Your task to perform on an android device: open the mobile data screen to see how much data has been used Image 0: 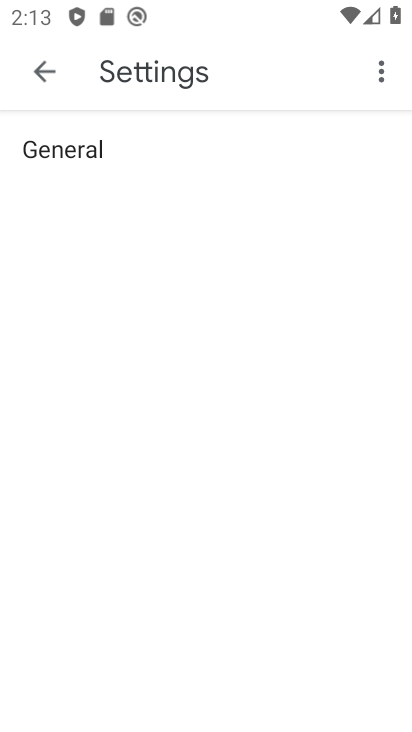
Step 0: press back button
Your task to perform on an android device: open the mobile data screen to see how much data has been used Image 1: 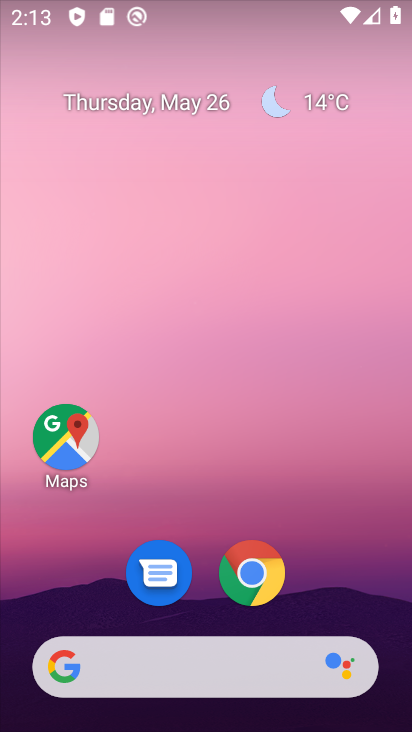
Step 1: drag from (309, 456) to (358, 2)
Your task to perform on an android device: open the mobile data screen to see how much data has been used Image 2: 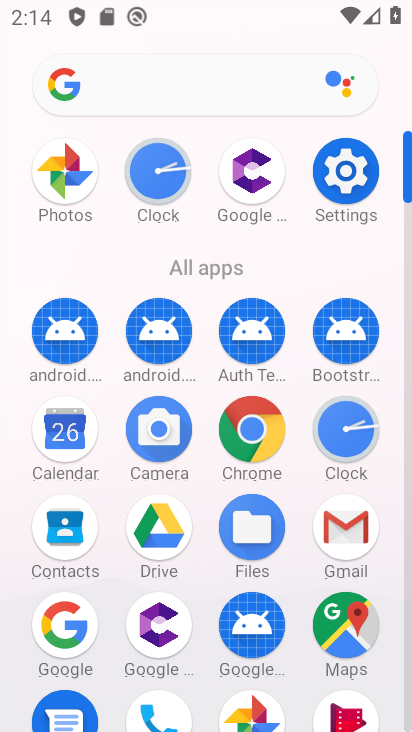
Step 2: drag from (13, 583) to (0, 293)
Your task to perform on an android device: open the mobile data screen to see how much data has been used Image 3: 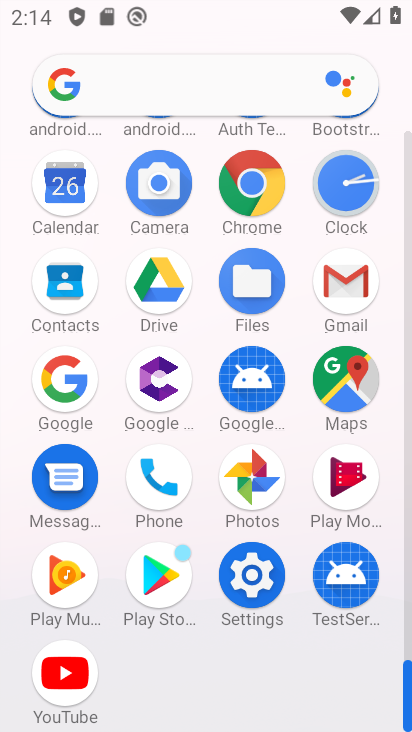
Step 3: click (249, 576)
Your task to perform on an android device: open the mobile data screen to see how much data has been used Image 4: 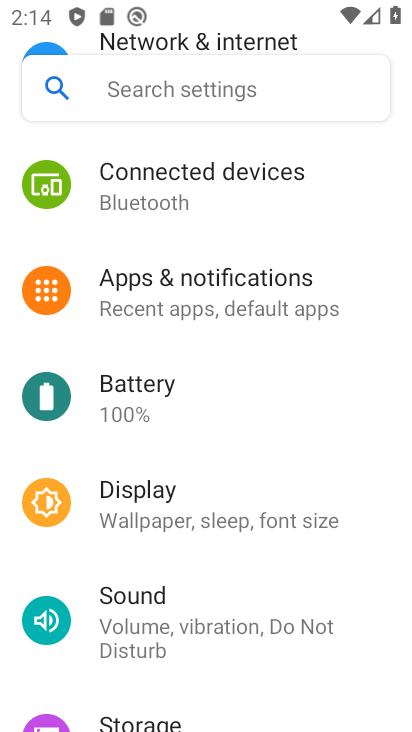
Step 4: drag from (280, 237) to (265, 586)
Your task to perform on an android device: open the mobile data screen to see how much data has been used Image 5: 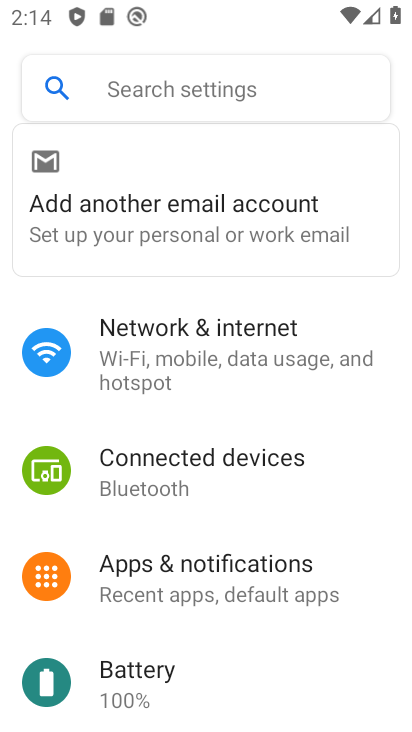
Step 5: click (214, 359)
Your task to perform on an android device: open the mobile data screen to see how much data has been used Image 6: 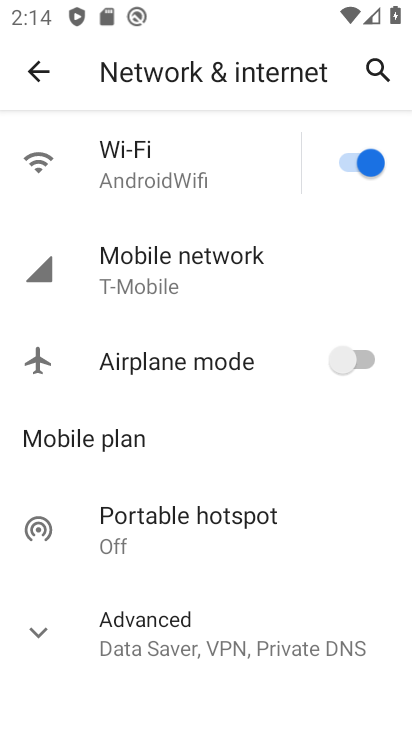
Step 6: click (175, 270)
Your task to perform on an android device: open the mobile data screen to see how much data has been used Image 7: 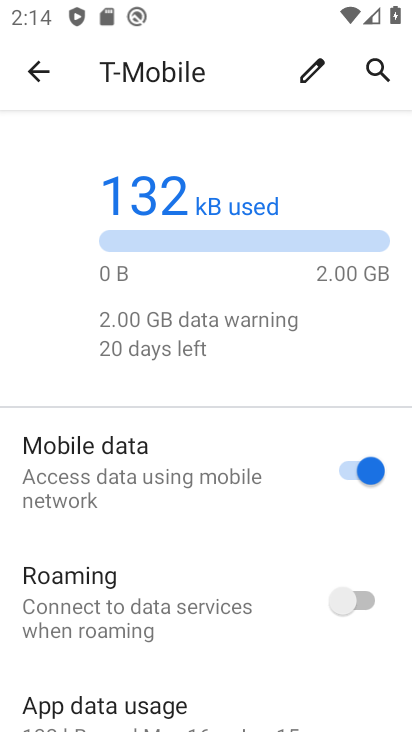
Step 7: task complete